Your task to perform on an android device: Go to settings Image 0: 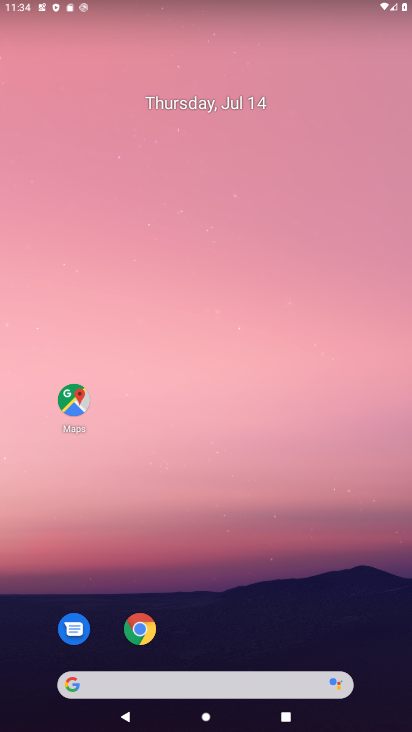
Step 0: press home button
Your task to perform on an android device: Go to settings Image 1: 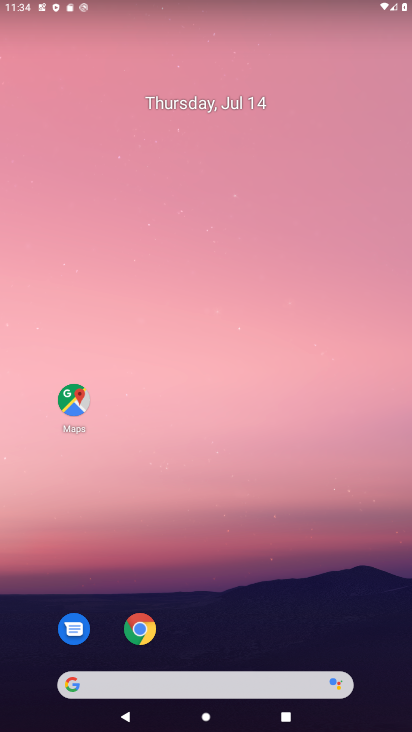
Step 1: drag from (231, 611) to (118, 119)
Your task to perform on an android device: Go to settings Image 2: 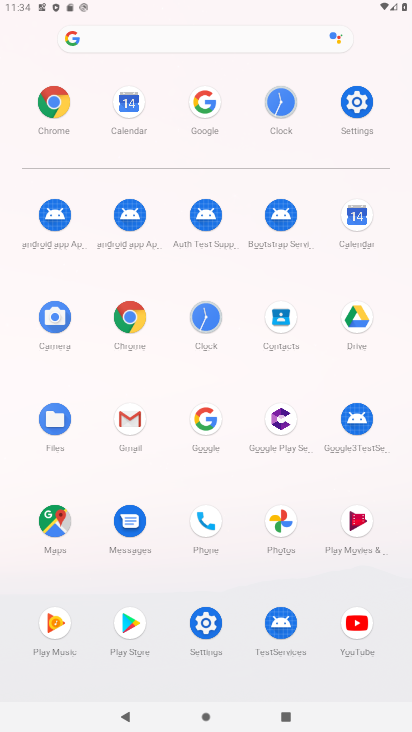
Step 2: click (362, 108)
Your task to perform on an android device: Go to settings Image 3: 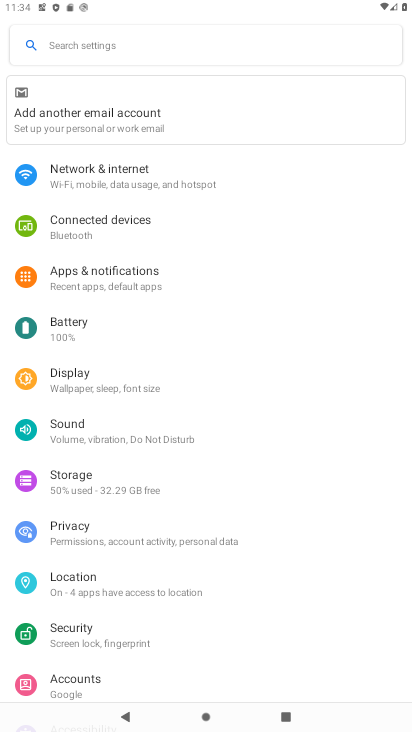
Step 3: task complete